Your task to perform on an android device: toggle sleep mode Image 0: 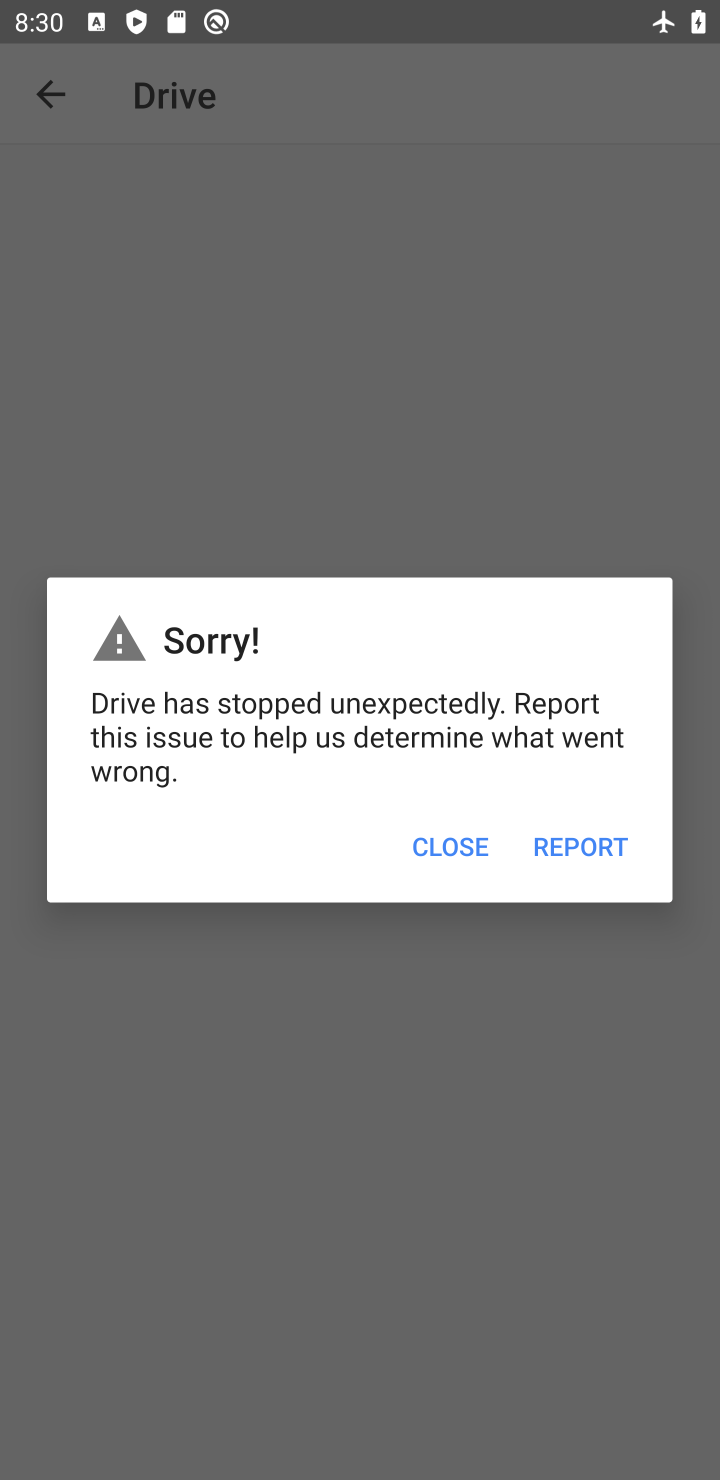
Step 0: press home button
Your task to perform on an android device: toggle sleep mode Image 1: 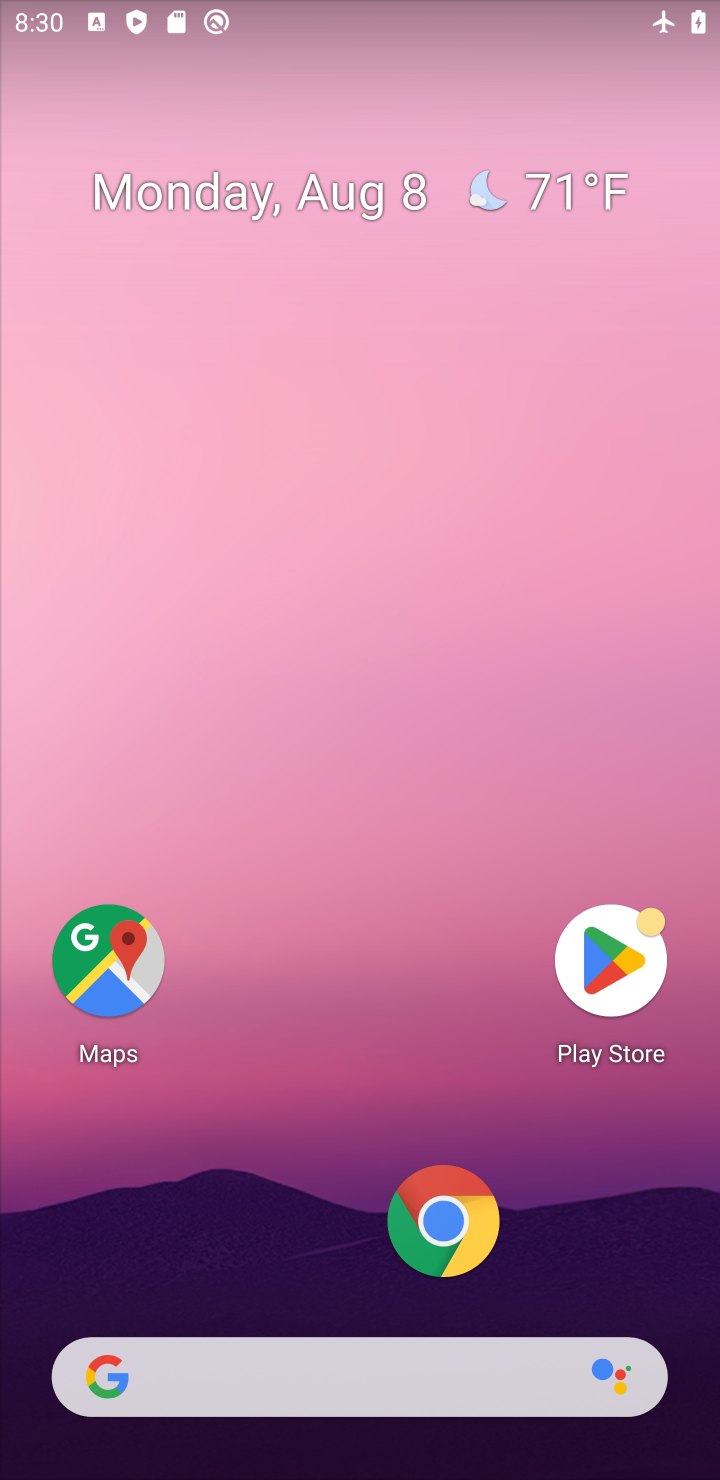
Step 1: drag from (264, 1198) to (436, 208)
Your task to perform on an android device: toggle sleep mode Image 2: 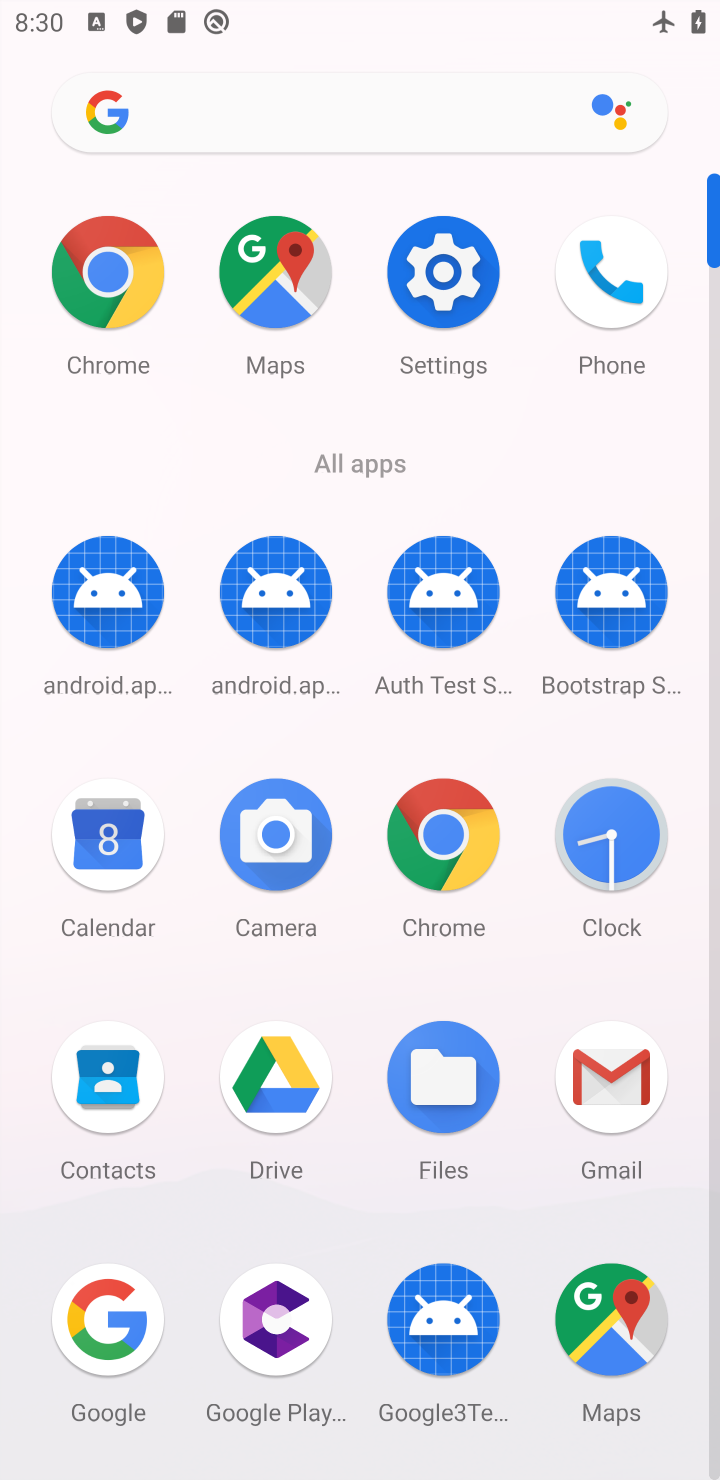
Step 2: click (436, 208)
Your task to perform on an android device: toggle sleep mode Image 3: 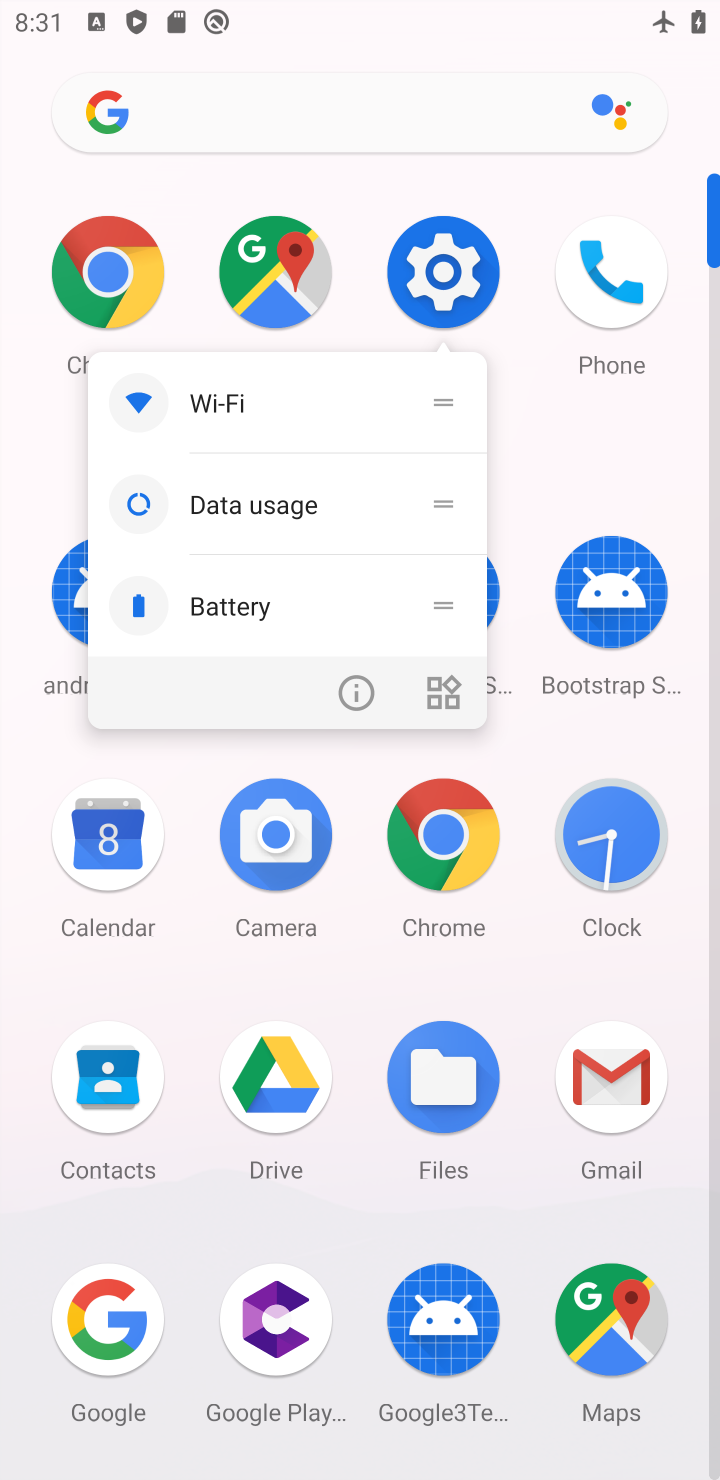
Step 3: task complete